Your task to perform on an android device: What's on my calendar tomorrow? Image 0: 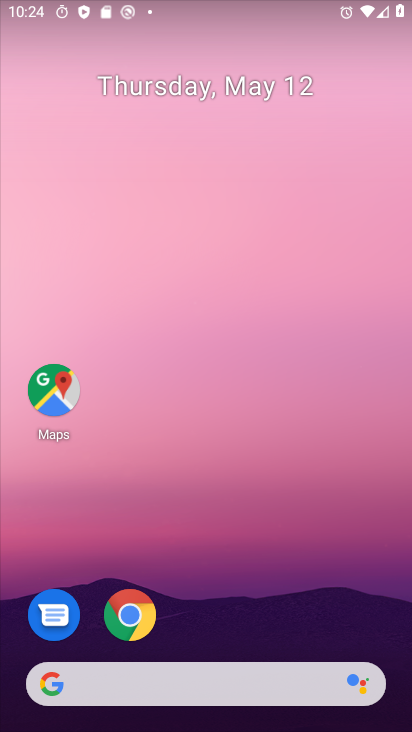
Step 0: click (230, 620)
Your task to perform on an android device: What's on my calendar tomorrow? Image 1: 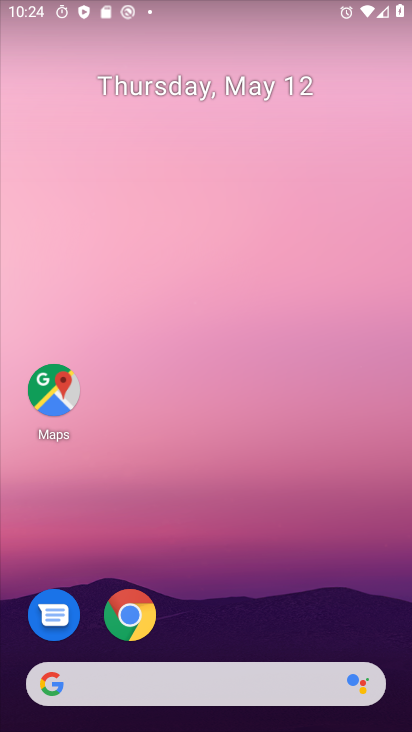
Step 1: drag from (250, 566) to (236, 110)
Your task to perform on an android device: What's on my calendar tomorrow? Image 2: 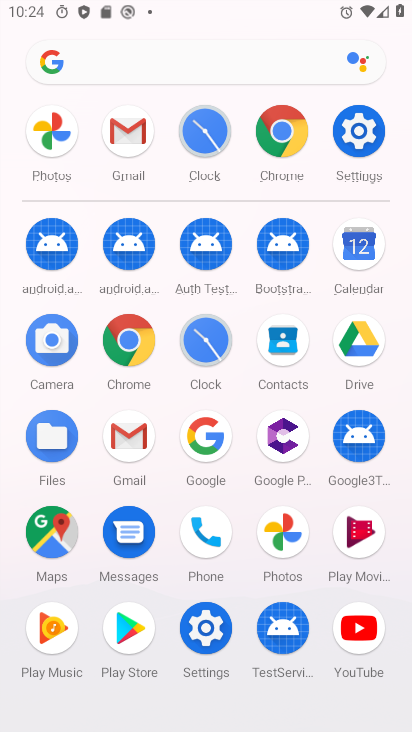
Step 2: click (349, 244)
Your task to perform on an android device: What's on my calendar tomorrow? Image 3: 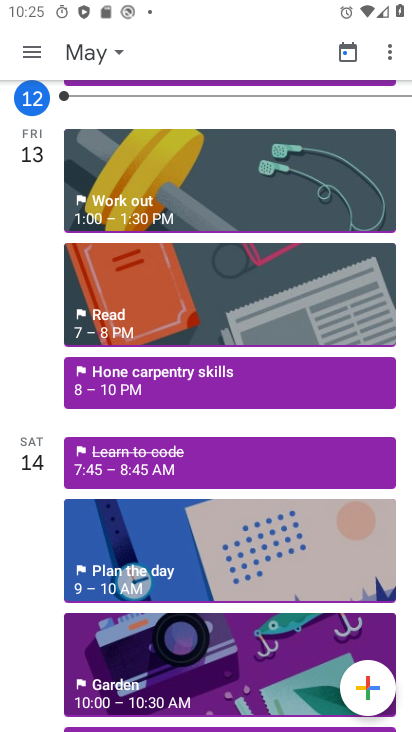
Step 3: task complete